Your task to perform on an android device: Search for jbl flip 4 on newegg, select the first entry, and add it to the cart. Image 0: 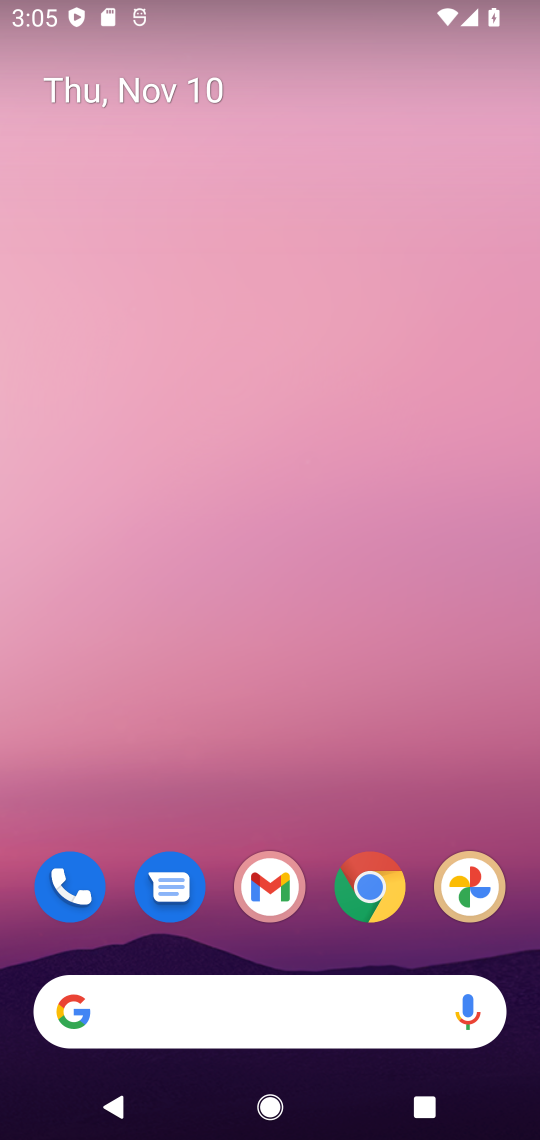
Step 0: drag from (326, 949) to (374, 0)
Your task to perform on an android device: Search for jbl flip 4 on newegg, select the first entry, and add it to the cart. Image 1: 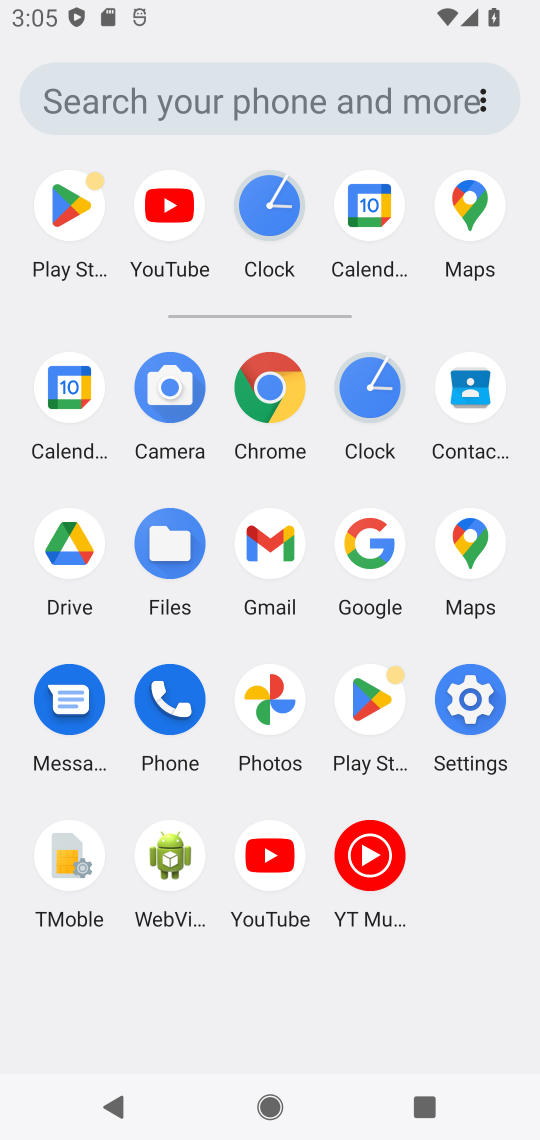
Step 1: click (269, 391)
Your task to perform on an android device: Search for jbl flip 4 on newegg, select the first entry, and add it to the cart. Image 2: 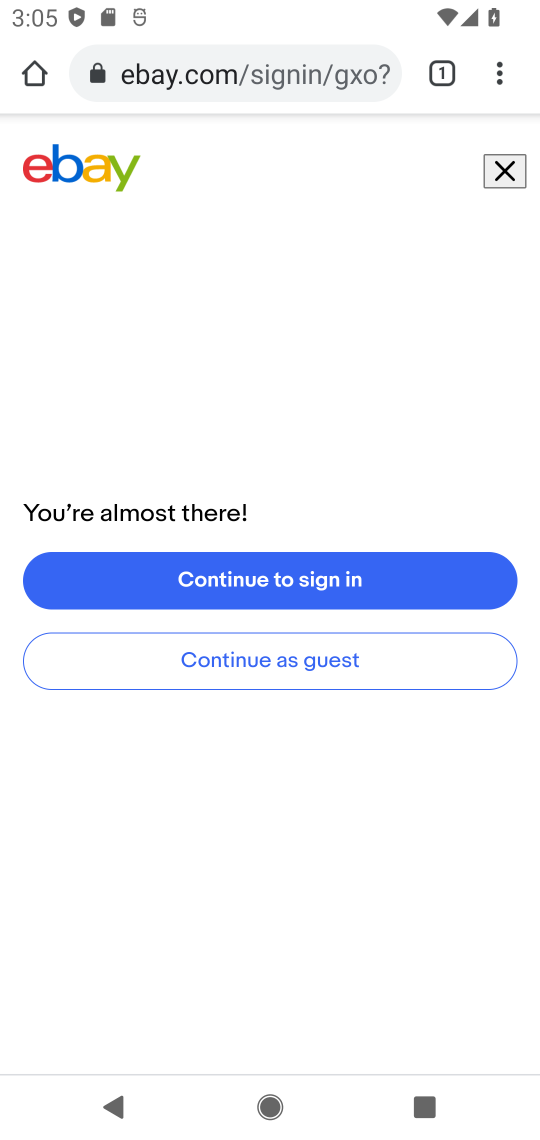
Step 2: click (266, 73)
Your task to perform on an android device: Search for jbl flip 4 on newegg, select the first entry, and add it to the cart. Image 3: 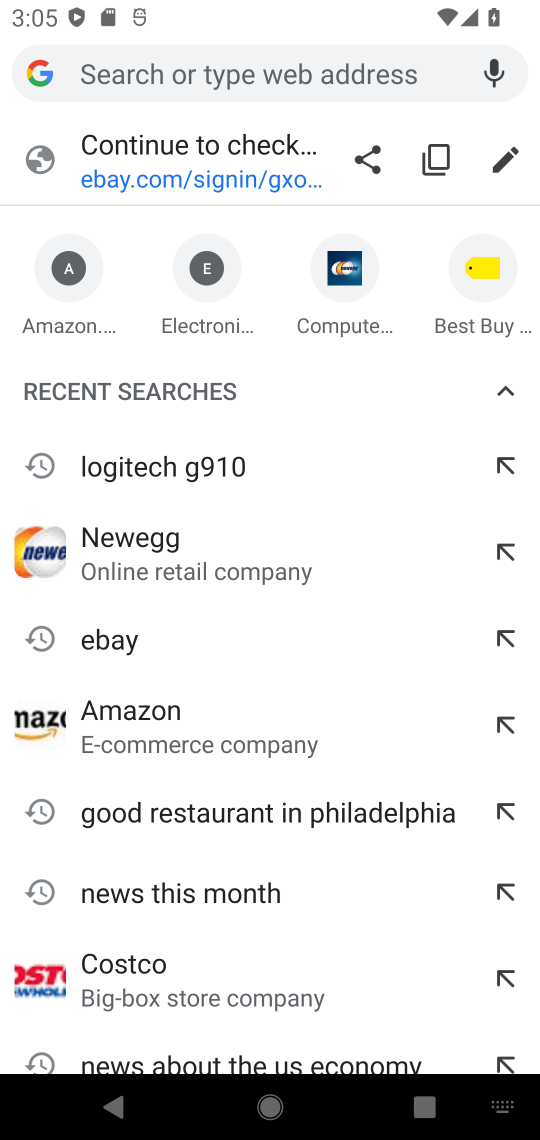
Step 3: type "newegg.com"
Your task to perform on an android device: Search for jbl flip 4 on newegg, select the first entry, and add it to the cart. Image 4: 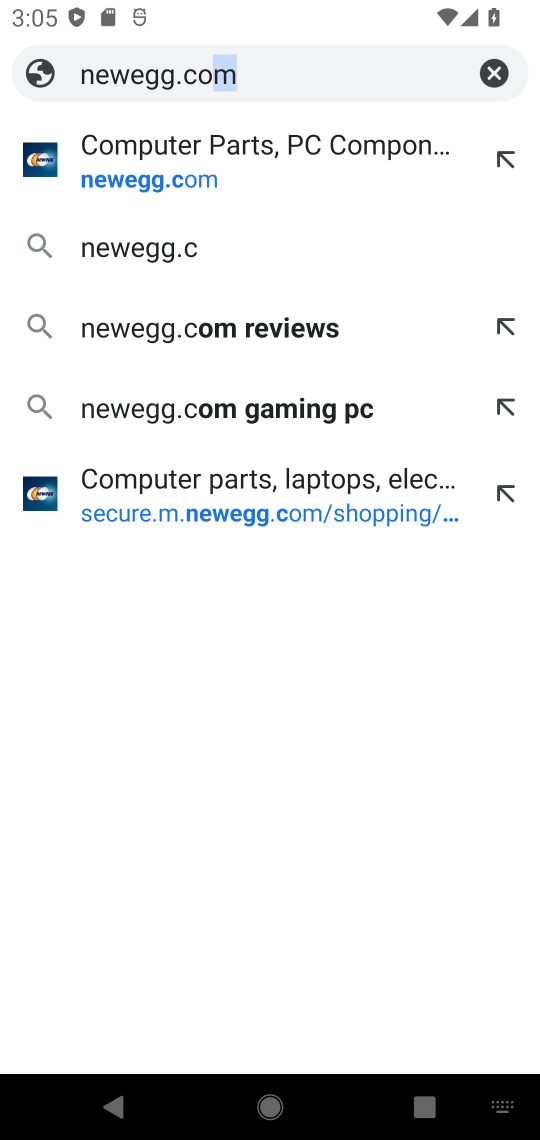
Step 4: press enter
Your task to perform on an android device: Search for jbl flip 4 on newegg, select the first entry, and add it to the cart. Image 5: 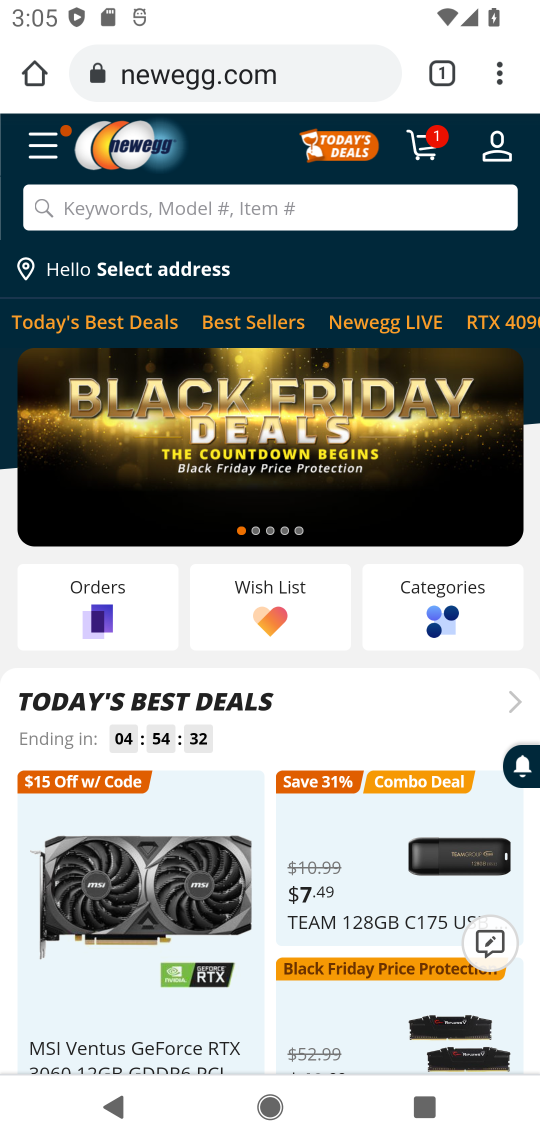
Step 5: click (272, 211)
Your task to perform on an android device: Search for jbl flip 4 on newegg, select the first entry, and add it to the cart. Image 6: 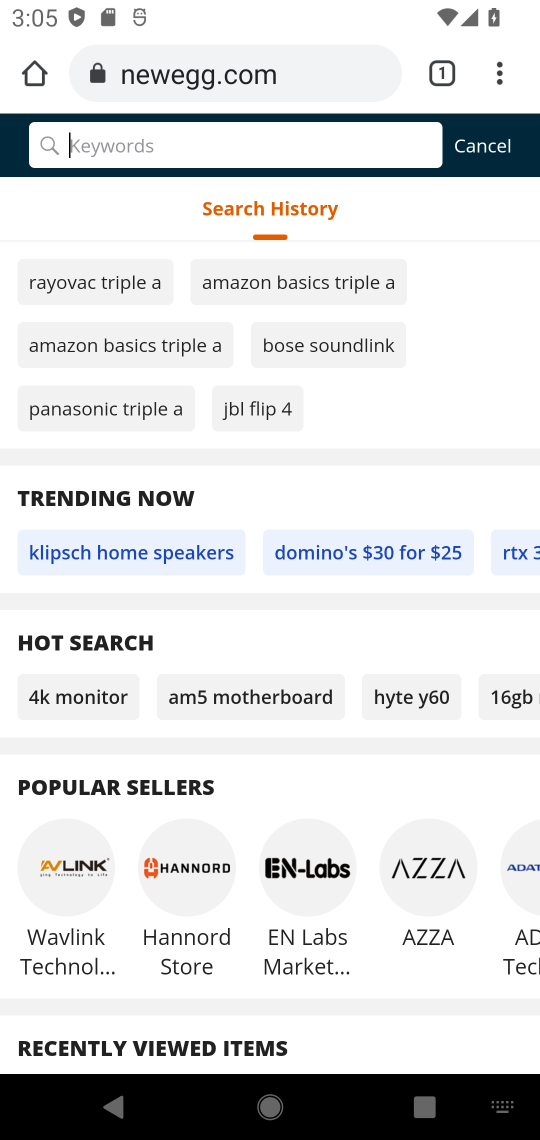
Step 6: type "jbl flip 4"
Your task to perform on an android device: Search for jbl flip 4 on newegg, select the first entry, and add it to the cart. Image 7: 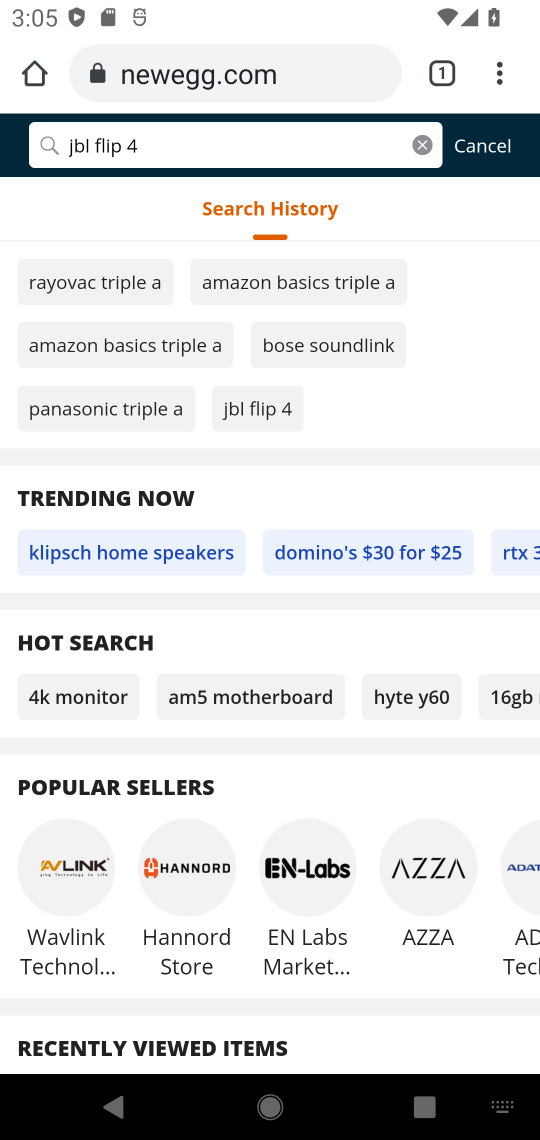
Step 7: press enter
Your task to perform on an android device: Search for jbl flip 4 on newegg, select the first entry, and add it to the cart. Image 8: 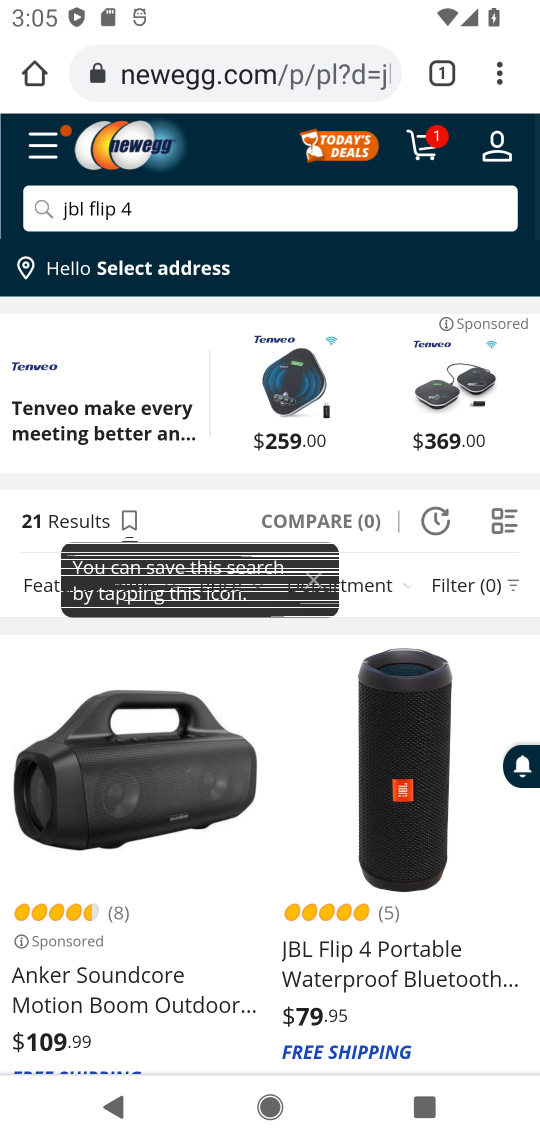
Step 8: drag from (165, 980) to (209, 512)
Your task to perform on an android device: Search for jbl flip 4 on newegg, select the first entry, and add it to the cart. Image 9: 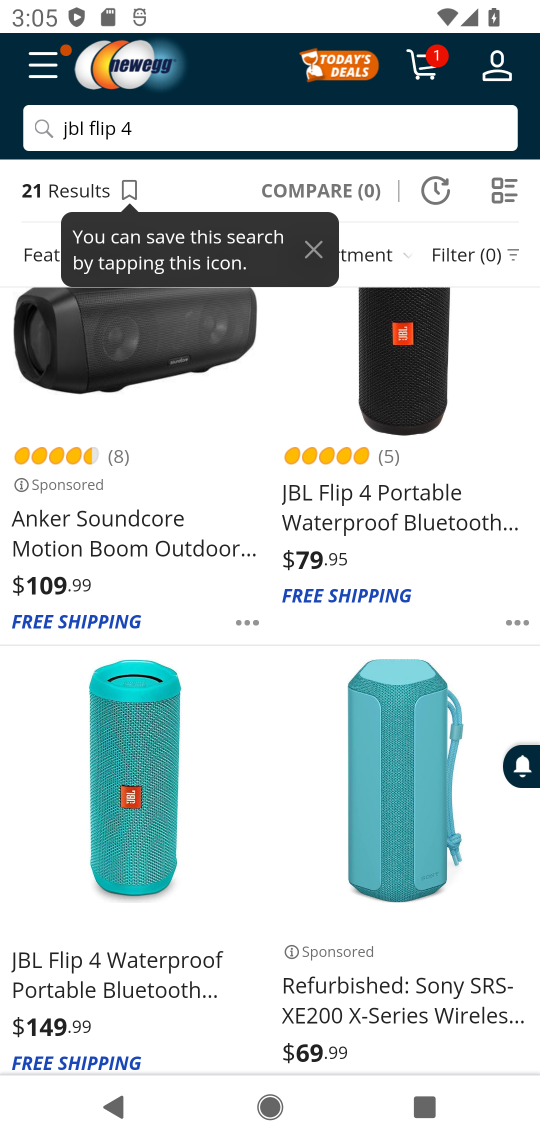
Step 9: click (353, 524)
Your task to perform on an android device: Search for jbl flip 4 on newegg, select the first entry, and add it to the cart. Image 10: 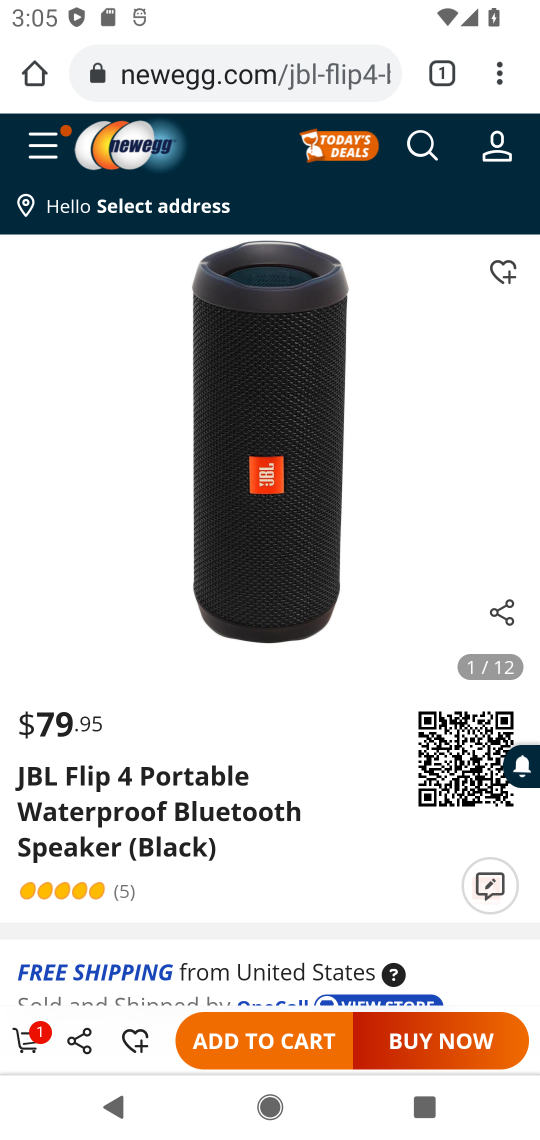
Step 10: drag from (309, 925) to (345, 473)
Your task to perform on an android device: Search for jbl flip 4 on newegg, select the first entry, and add it to the cart. Image 11: 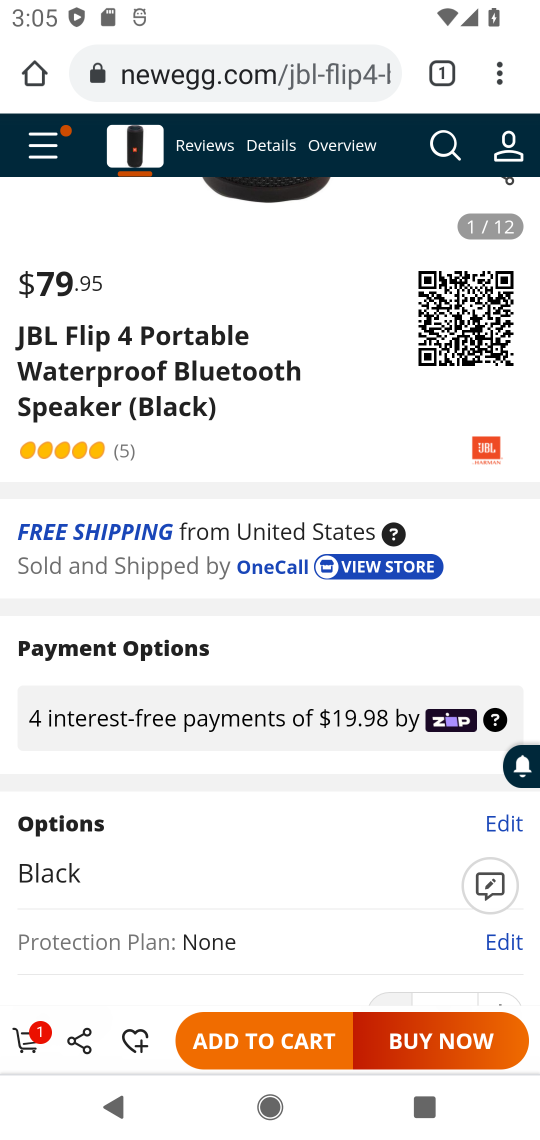
Step 11: click (283, 1036)
Your task to perform on an android device: Search for jbl flip 4 on newegg, select the first entry, and add it to the cart. Image 12: 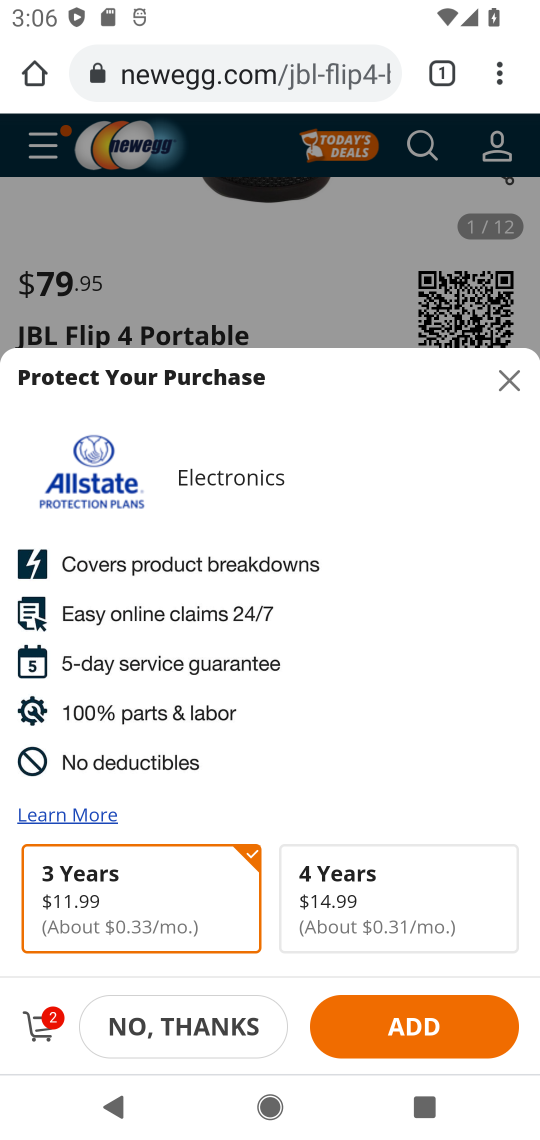
Step 12: task complete